Your task to perform on an android device: turn on priority inbox in the gmail app Image 0: 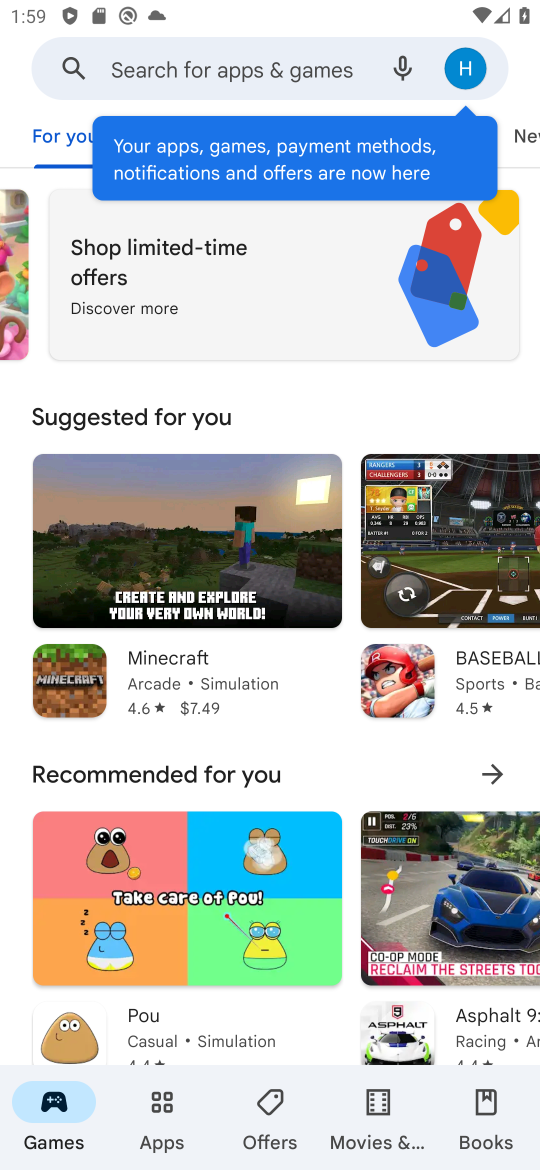
Step 0: press home button
Your task to perform on an android device: turn on priority inbox in the gmail app Image 1: 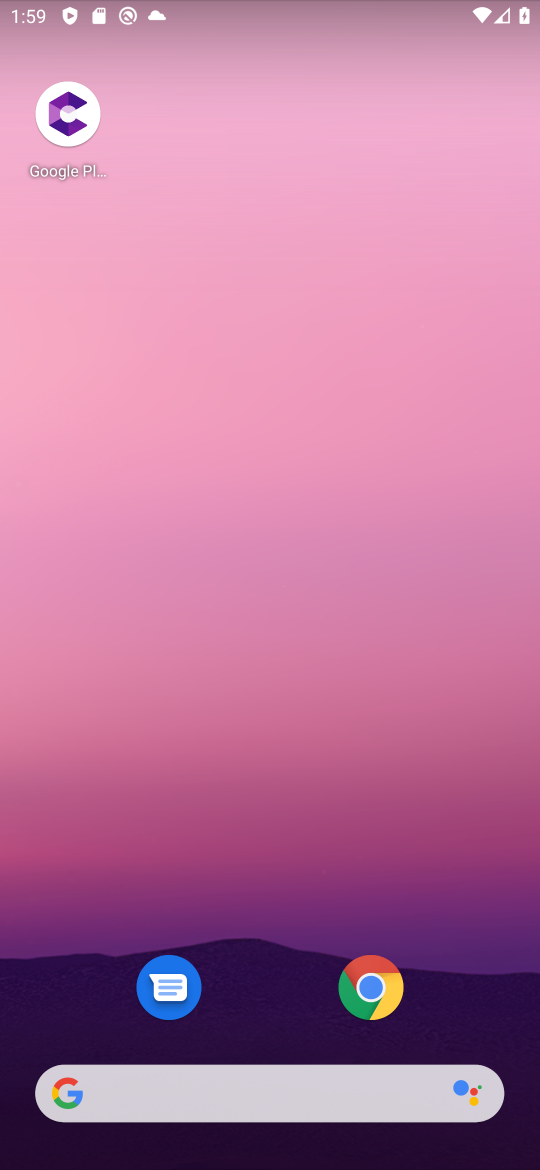
Step 1: drag from (339, 1103) to (279, 203)
Your task to perform on an android device: turn on priority inbox in the gmail app Image 2: 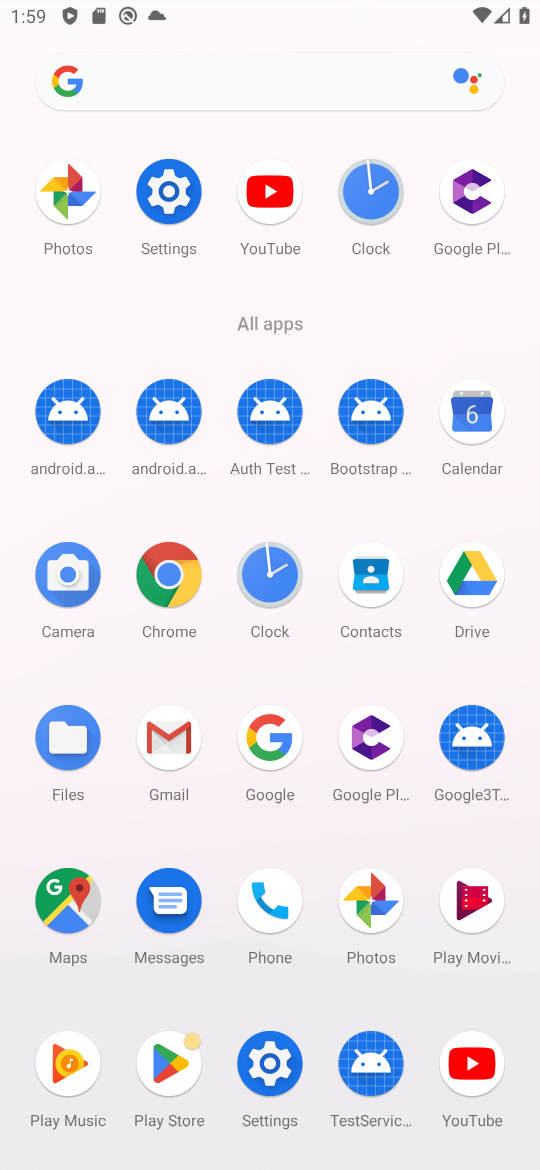
Step 2: click (167, 750)
Your task to perform on an android device: turn on priority inbox in the gmail app Image 3: 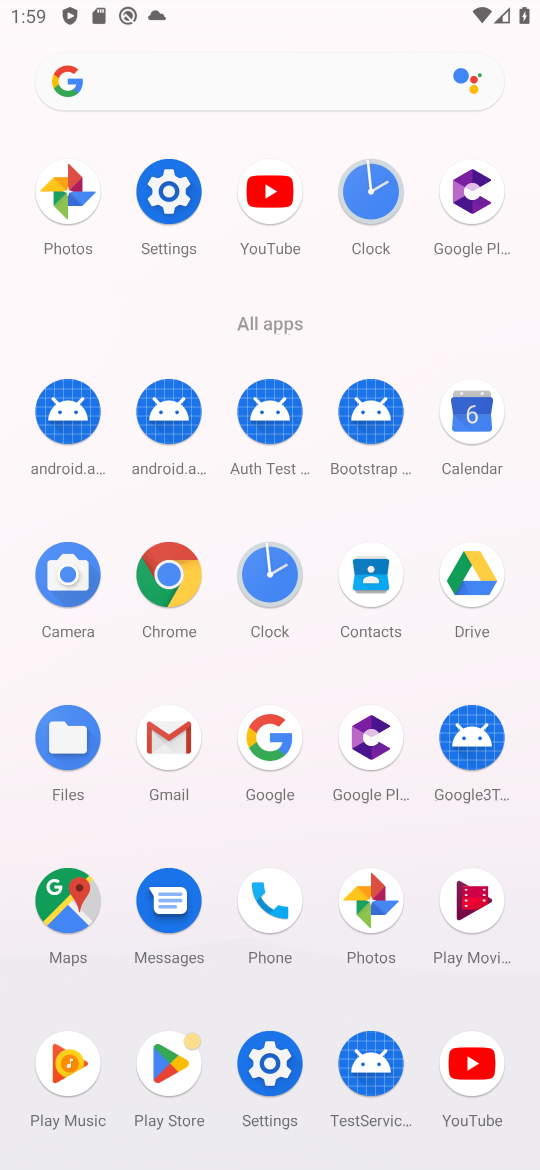
Step 3: click (167, 750)
Your task to perform on an android device: turn on priority inbox in the gmail app Image 4: 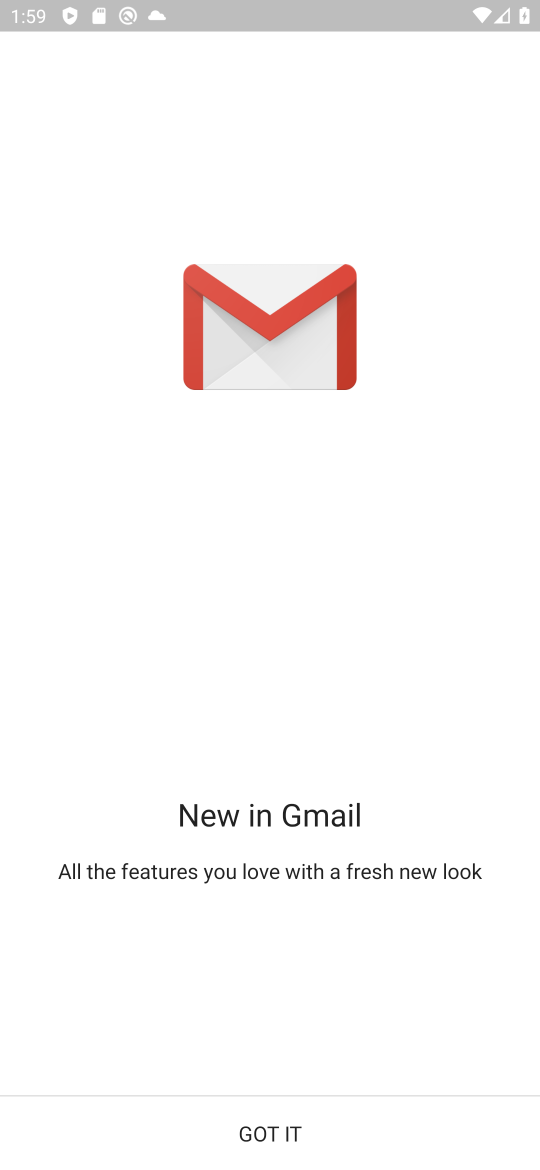
Step 4: click (322, 1126)
Your task to perform on an android device: turn on priority inbox in the gmail app Image 5: 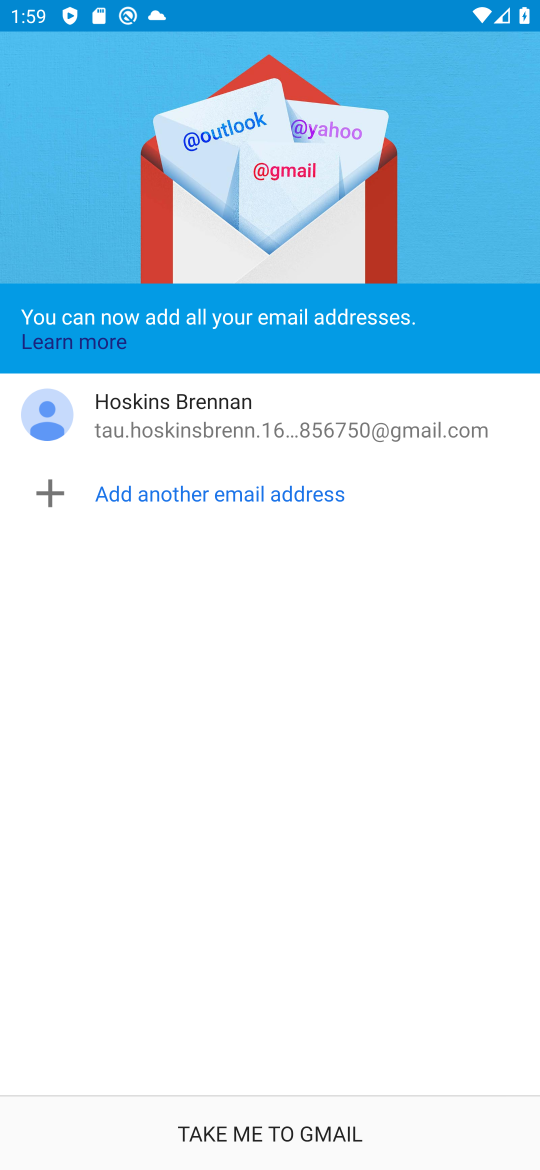
Step 5: click (322, 1126)
Your task to perform on an android device: turn on priority inbox in the gmail app Image 6: 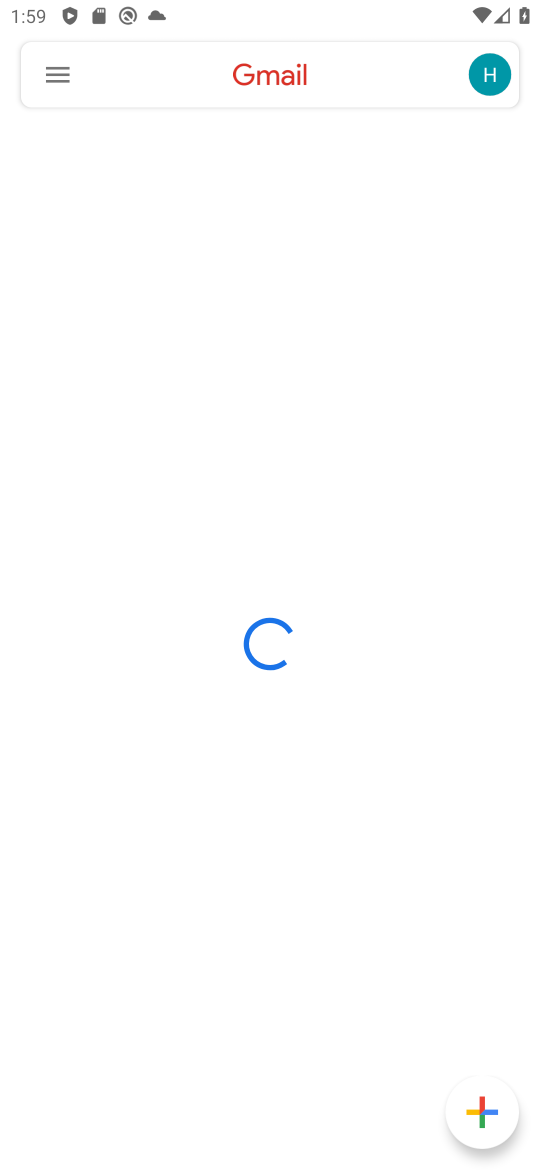
Step 6: click (71, 77)
Your task to perform on an android device: turn on priority inbox in the gmail app Image 7: 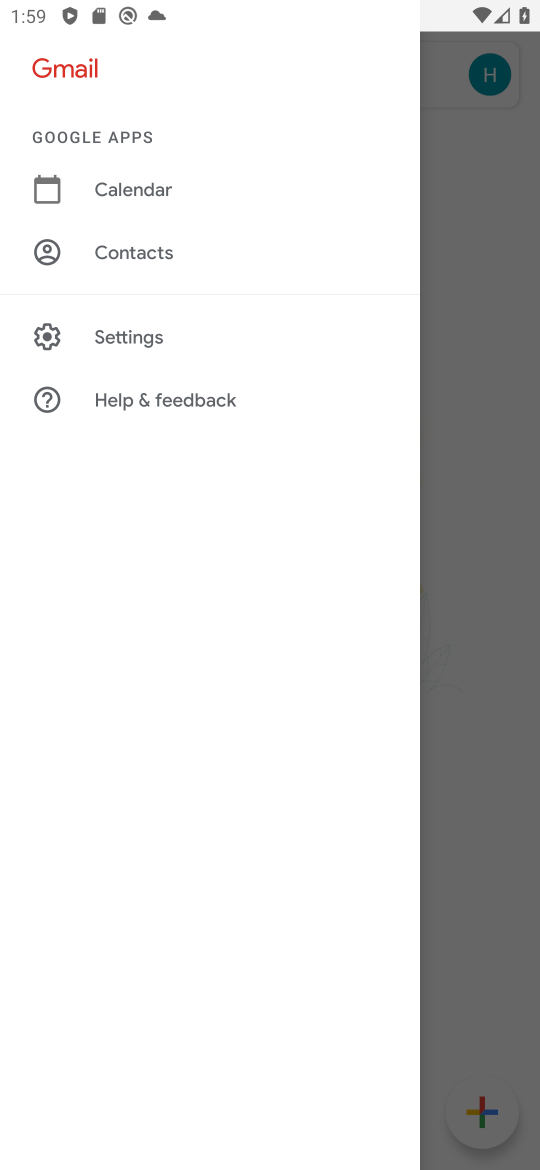
Step 7: click (195, 351)
Your task to perform on an android device: turn on priority inbox in the gmail app Image 8: 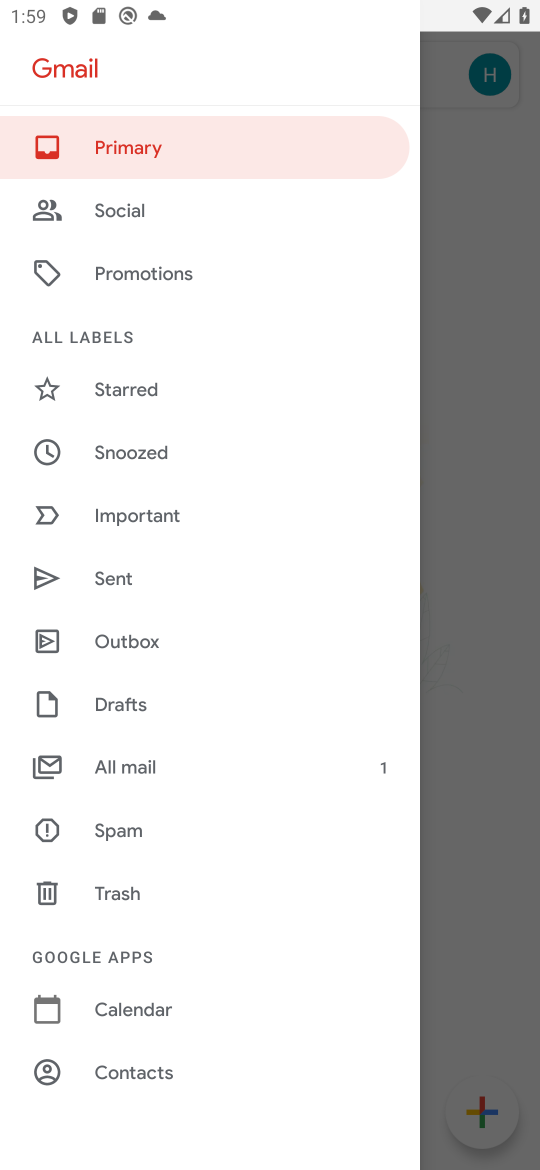
Step 8: drag from (158, 1025) to (177, 300)
Your task to perform on an android device: turn on priority inbox in the gmail app Image 9: 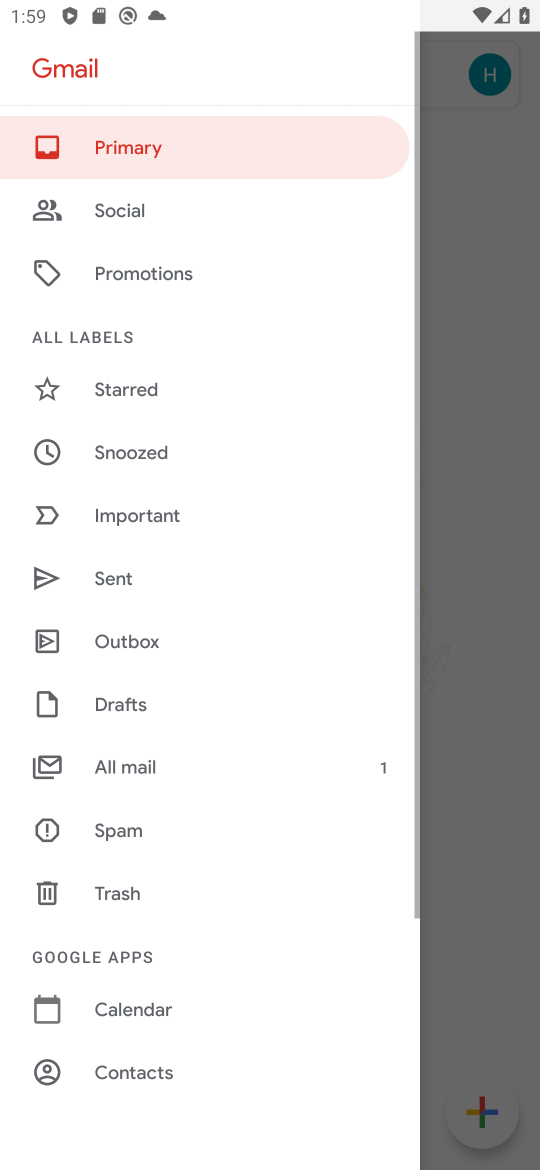
Step 9: drag from (262, 1031) to (244, 393)
Your task to perform on an android device: turn on priority inbox in the gmail app Image 10: 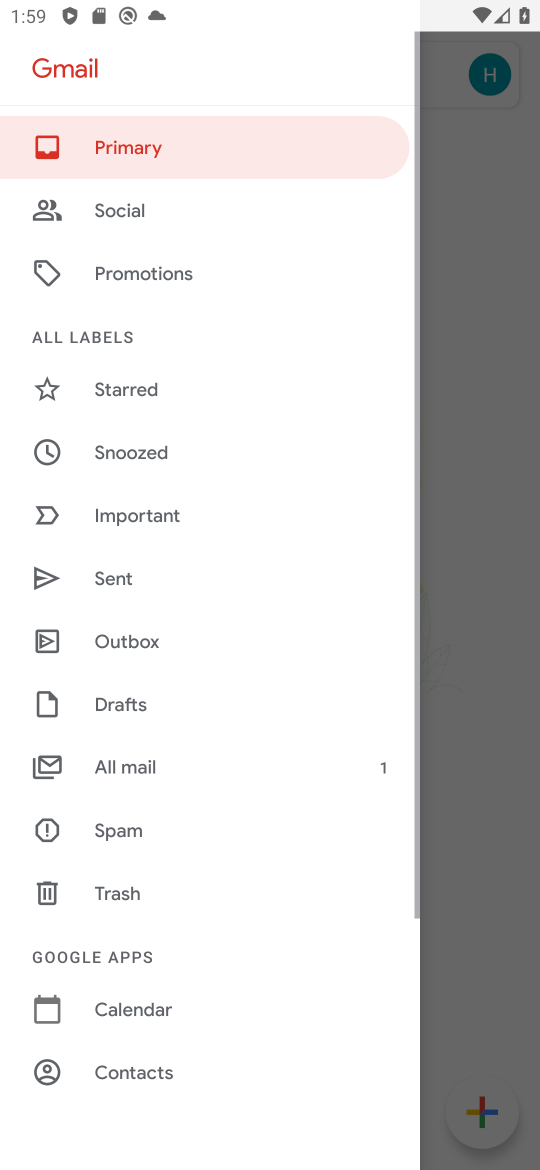
Step 10: drag from (212, 950) to (295, 91)
Your task to perform on an android device: turn on priority inbox in the gmail app Image 11: 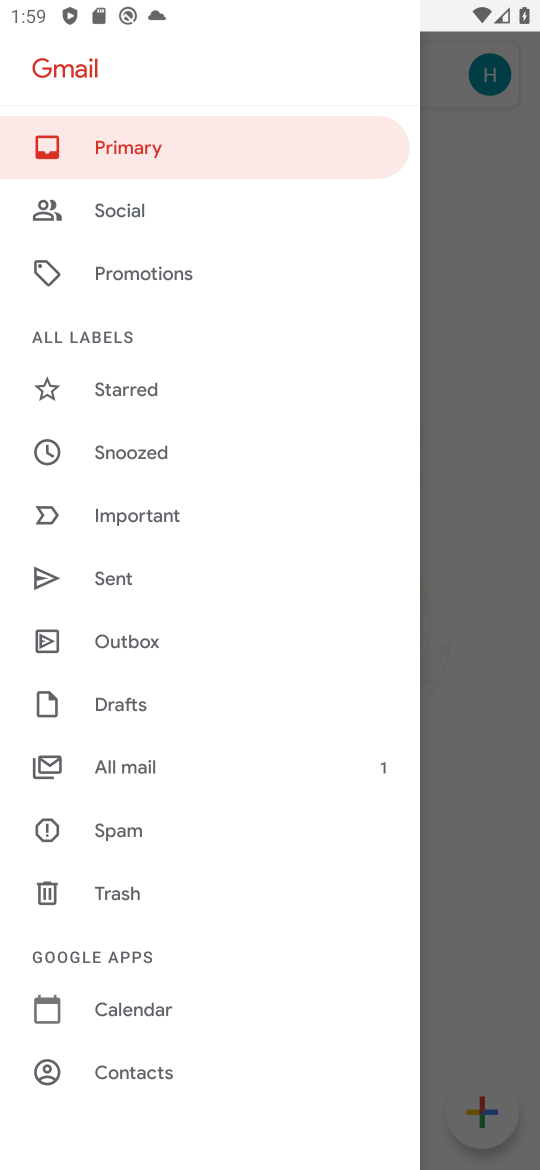
Step 11: drag from (236, 845) to (259, 253)
Your task to perform on an android device: turn on priority inbox in the gmail app Image 12: 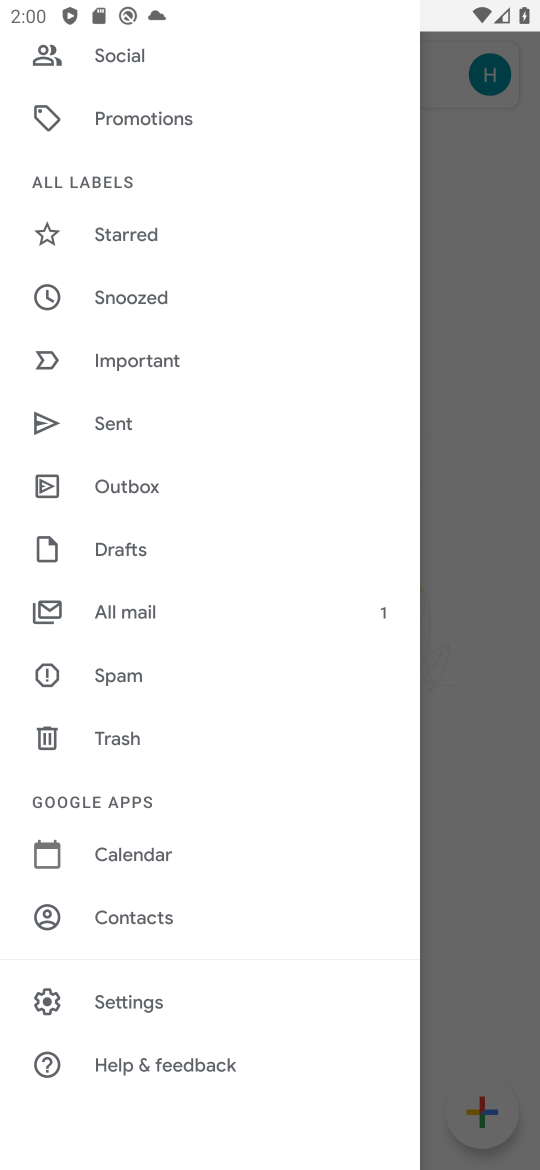
Step 12: click (162, 988)
Your task to perform on an android device: turn on priority inbox in the gmail app Image 13: 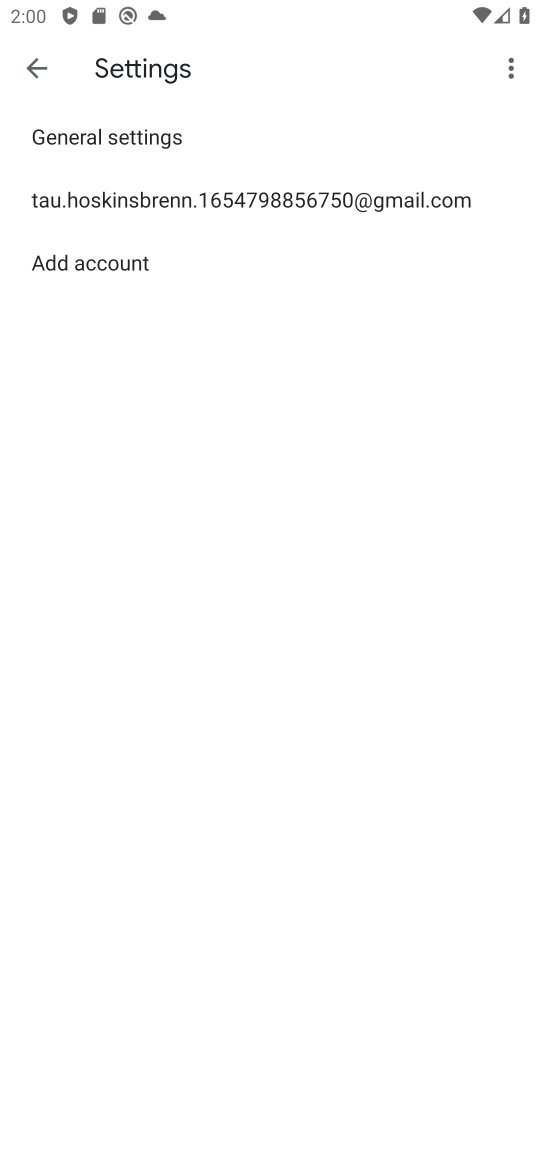
Step 13: click (150, 192)
Your task to perform on an android device: turn on priority inbox in the gmail app Image 14: 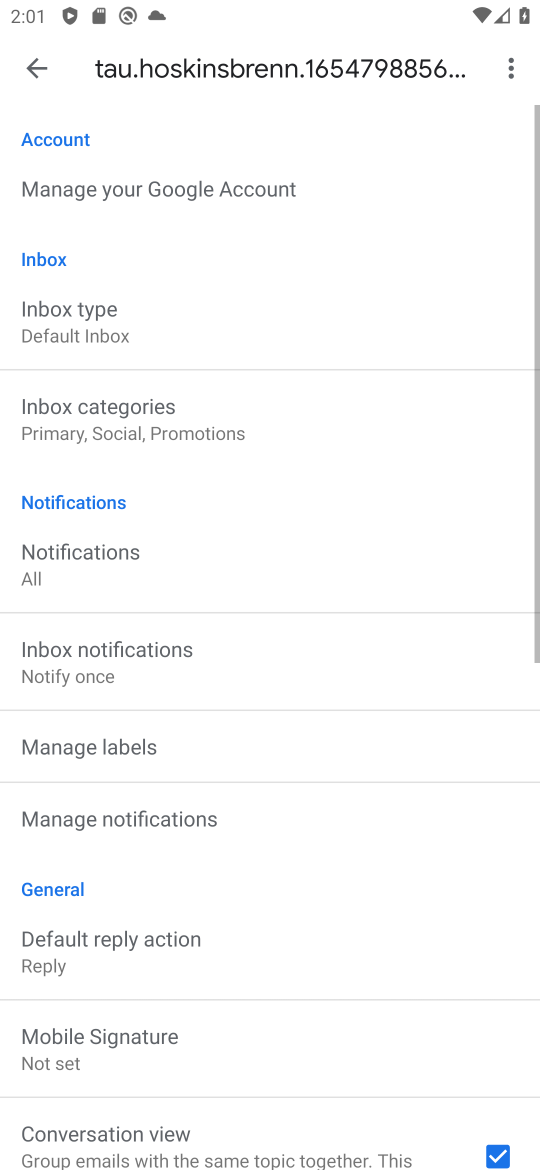
Step 14: click (105, 337)
Your task to perform on an android device: turn on priority inbox in the gmail app Image 15: 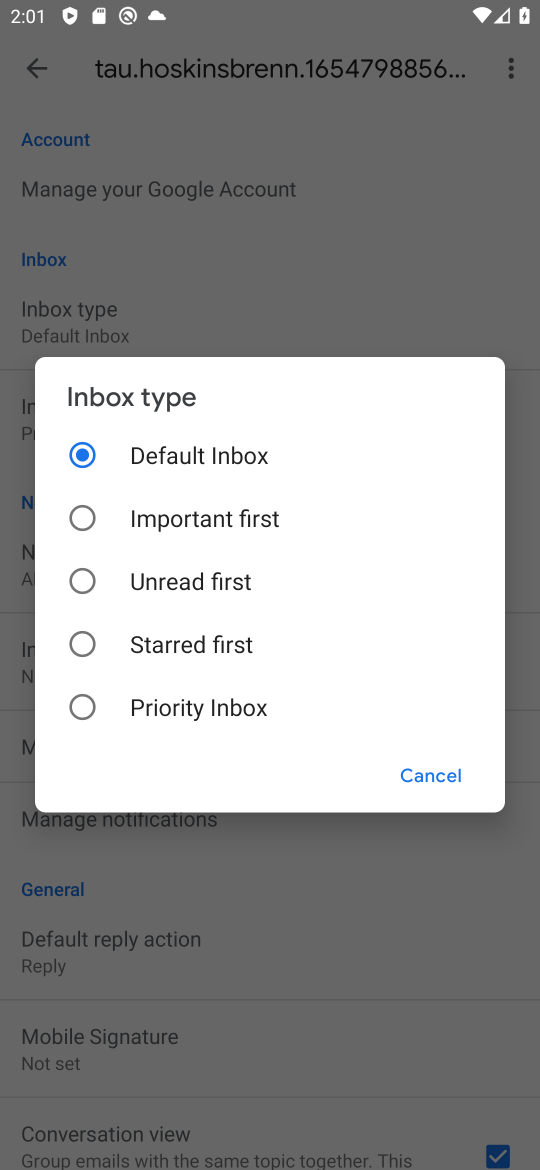
Step 15: click (193, 704)
Your task to perform on an android device: turn on priority inbox in the gmail app Image 16: 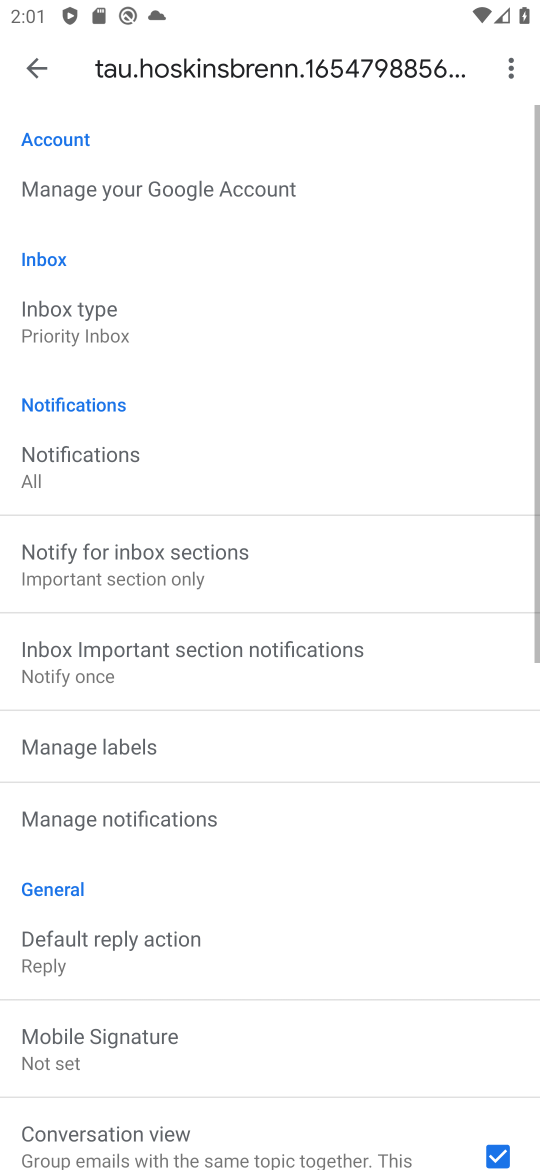
Step 16: task complete